Your task to perform on an android device: open a bookmark in the chrome app Image 0: 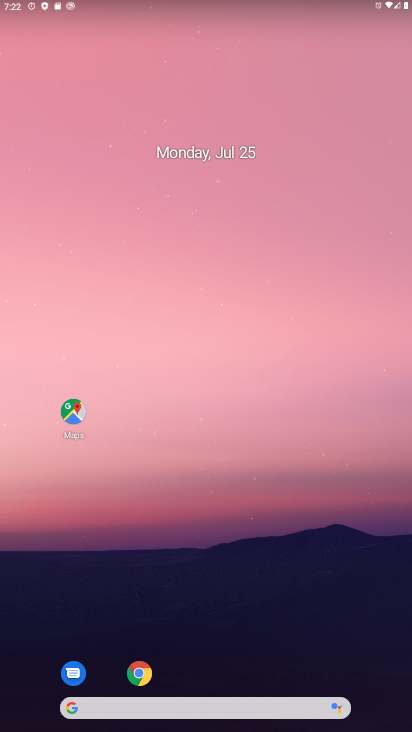
Step 0: click (214, 39)
Your task to perform on an android device: open a bookmark in the chrome app Image 1: 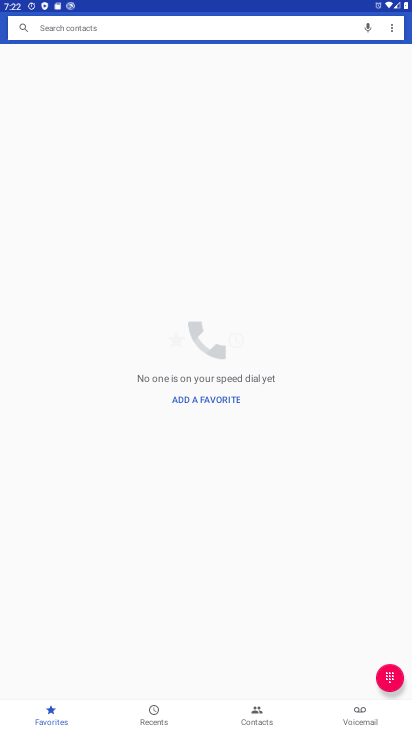
Step 1: press home button
Your task to perform on an android device: open a bookmark in the chrome app Image 2: 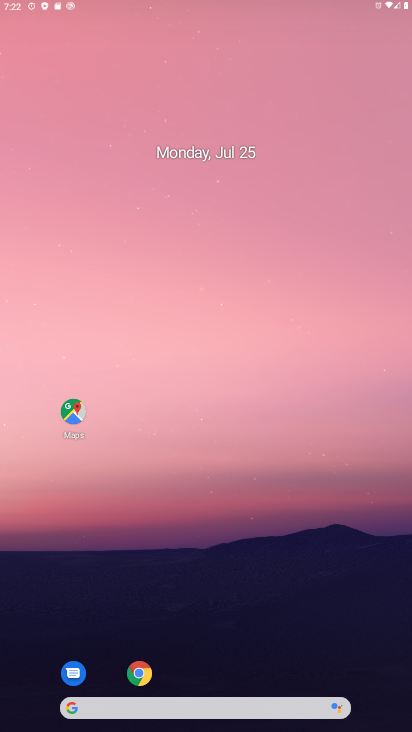
Step 2: drag from (326, 600) to (325, 19)
Your task to perform on an android device: open a bookmark in the chrome app Image 3: 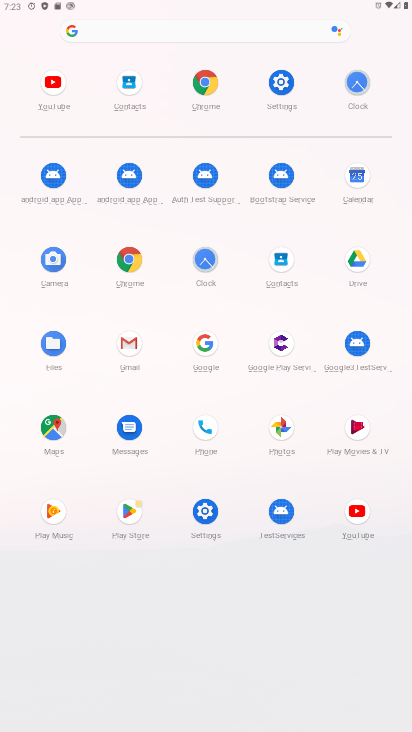
Step 3: click (123, 258)
Your task to perform on an android device: open a bookmark in the chrome app Image 4: 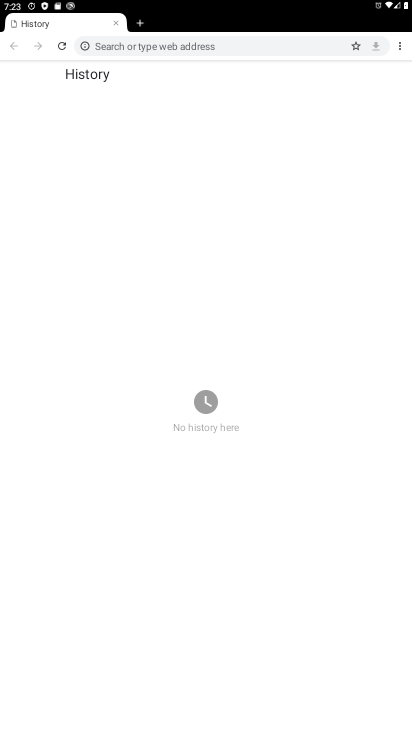
Step 4: click (398, 39)
Your task to perform on an android device: open a bookmark in the chrome app Image 5: 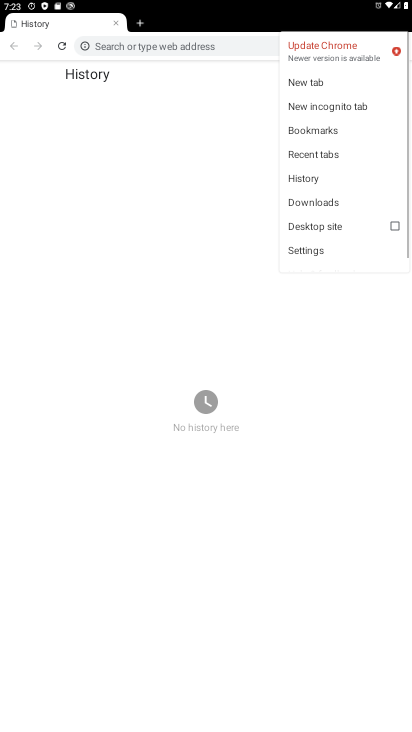
Step 5: click (297, 134)
Your task to perform on an android device: open a bookmark in the chrome app Image 6: 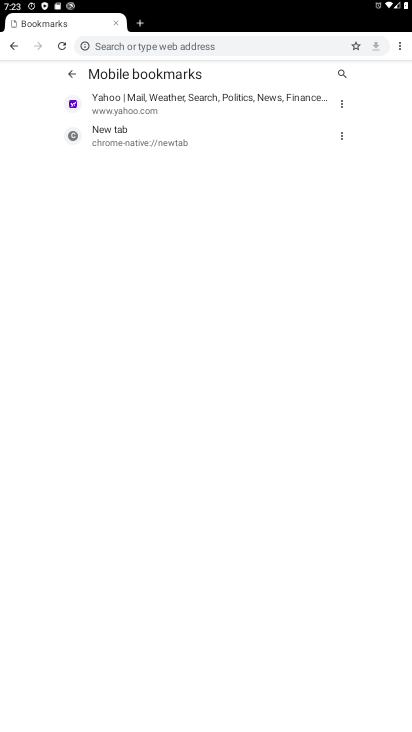
Step 6: task complete